Your task to perform on an android device: Open Chrome and go to settings Image 0: 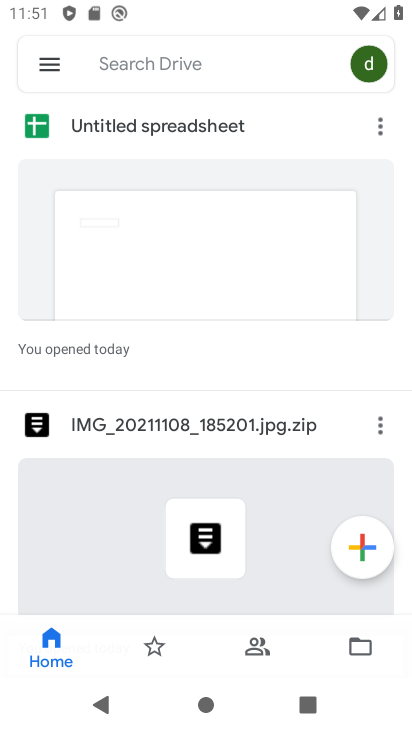
Step 0: press home button
Your task to perform on an android device: Open Chrome and go to settings Image 1: 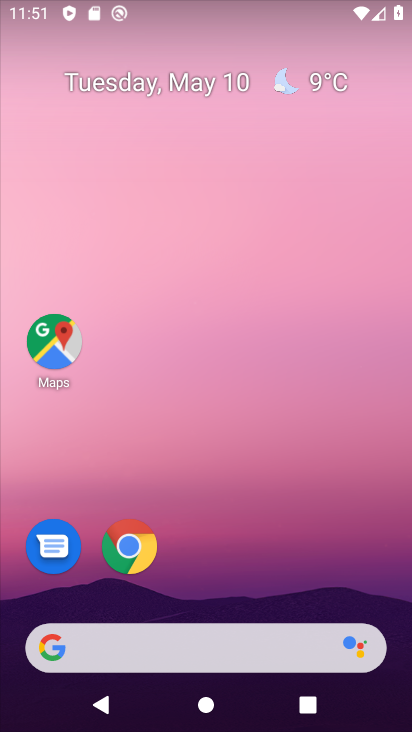
Step 1: click (131, 553)
Your task to perform on an android device: Open Chrome and go to settings Image 2: 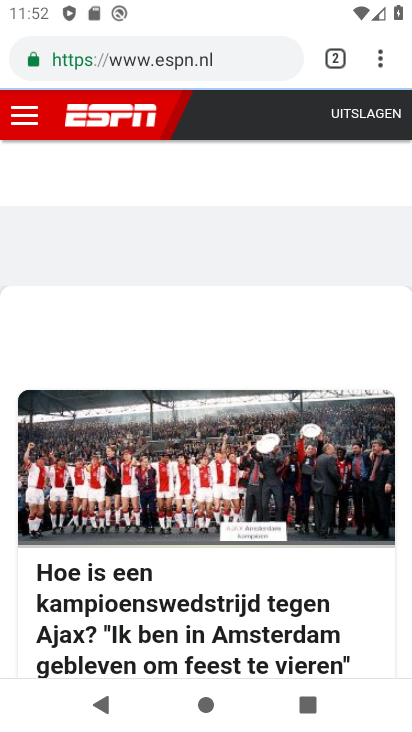
Step 2: click (382, 62)
Your task to perform on an android device: Open Chrome and go to settings Image 3: 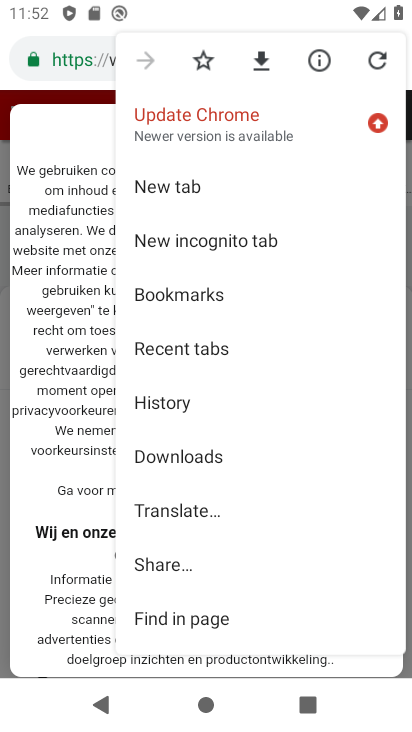
Step 3: drag from (181, 581) to (299, 162)
Your task to perform on an android device: Open Chrome and go to settings Image 4: 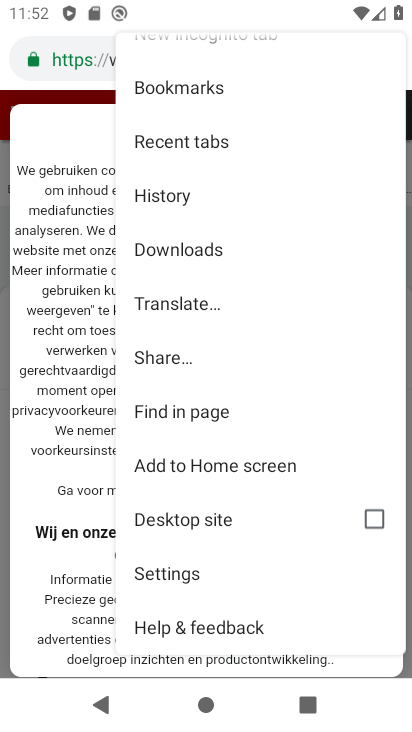
Step 4: click (187, 574)
Your task to perform on an android device: Open Chrome and go to settings Image 5: 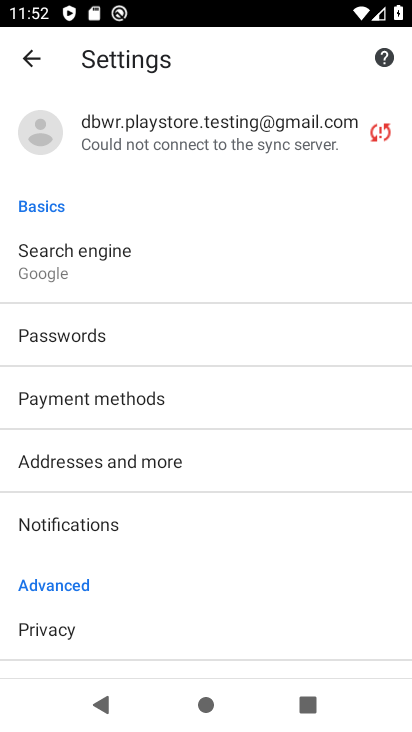
Step 5: task complete